Your task to perform on an android device: open the mobile data screen to see how much data has been used Image 0: 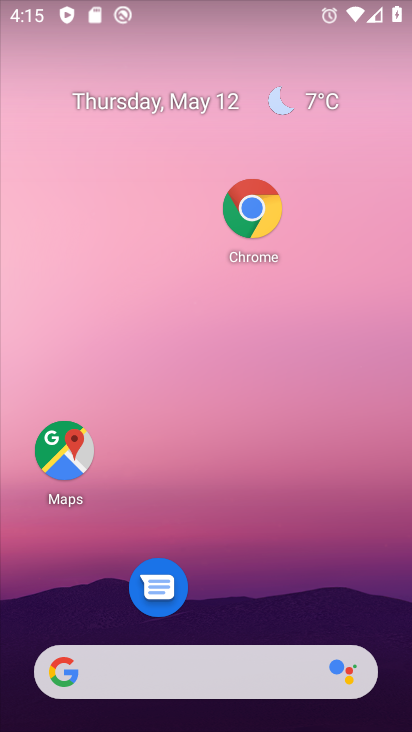
Step 0: drag from (246, 607) to (272, 104)
Your task to perform on an android device: open the mobile data screen to see how much data has been used Image 1: 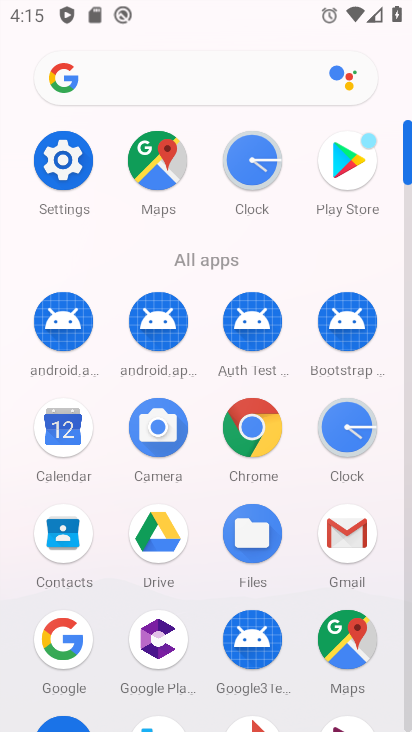
Step 1: click (77, 168)
Your task to perform on an android device: open the mobile data screen to see how much data has been used Image 2: 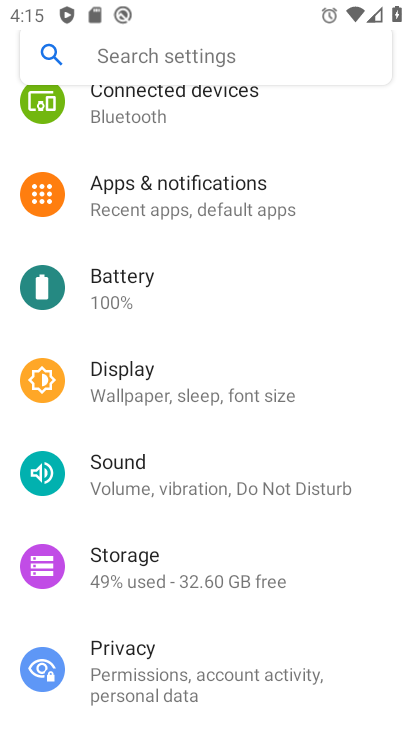
Step 2: drag from (262, 381) to (273, 537)
Your task to perform on an android device: open the mobile data screen to see how much data has been used Image 3: 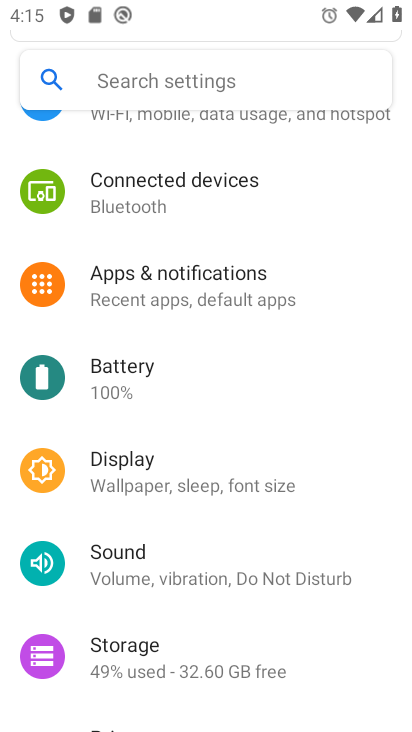
Step 3: drag from (249, 199) to (244, 641)
Your task to perform on an android device: open the mobile data screen to see how much data has been used Image 4: 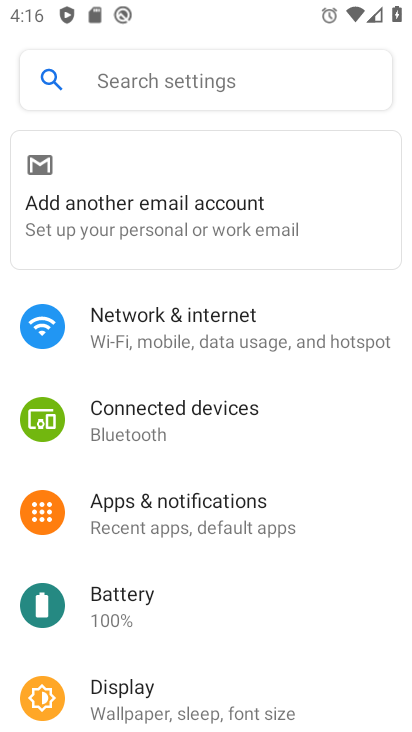
Step 4: click (169, 338)
Your task to perform on an android device: open the mobile data screen to see how much data has been used Image 5: 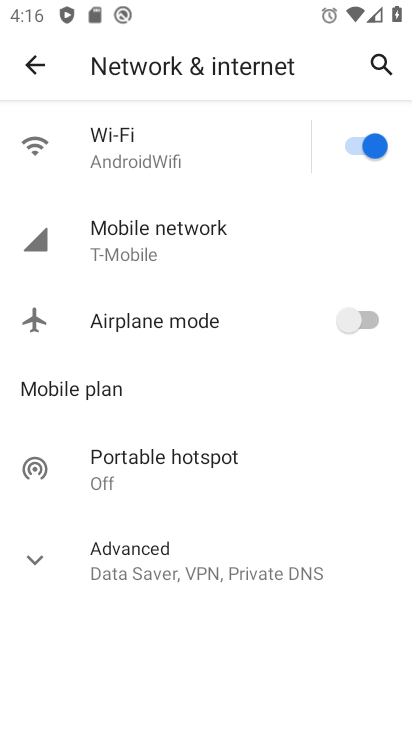
Step 5: click (144, 248)
Your task to perform on an android device: open the mobile data screen to see how much data has been used Image 6: 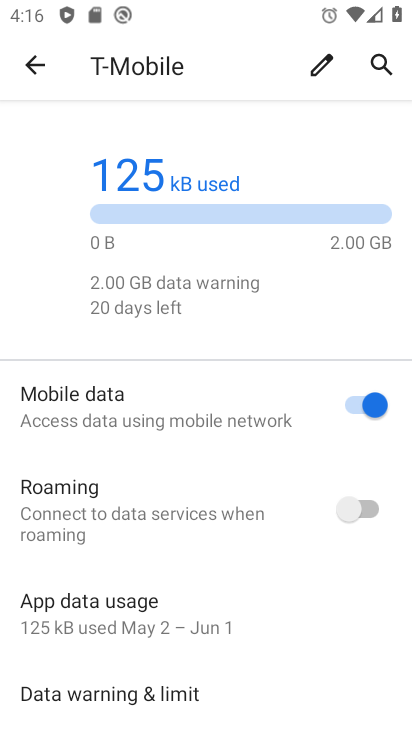
Step 6: task complete